Your task to perform on an android device: Clear all items from cart on target.com. Search for lg ultragear on target.com, select the first entry, and add it to the cart. Image 0: 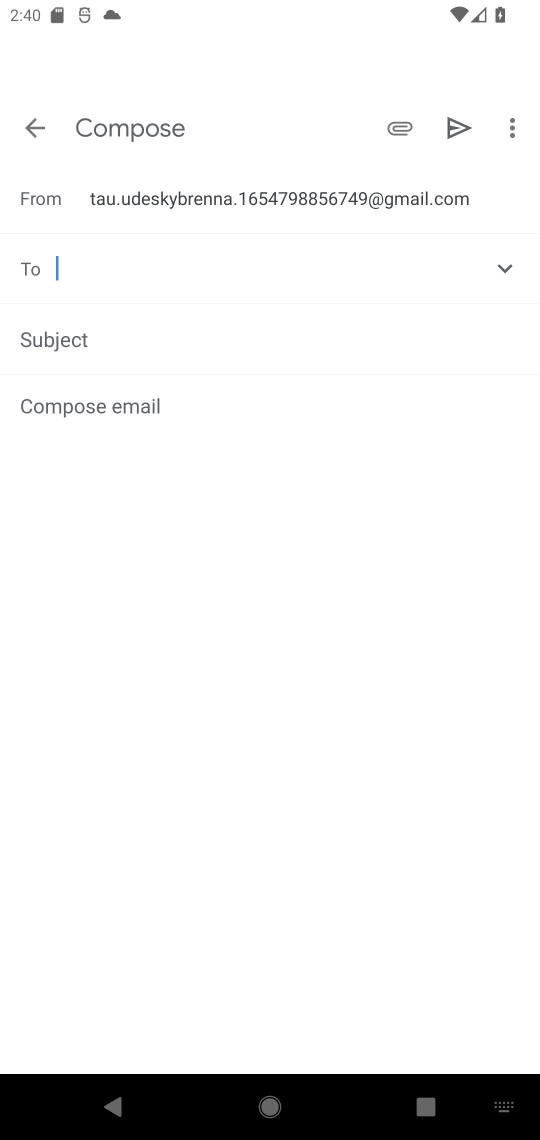
Step 0: press home button
Your task to perform on an android device: Clear all items from cart on target.com. Search for lg ultragear on target.com, select the first entry, and add it to the cart. Image 1: 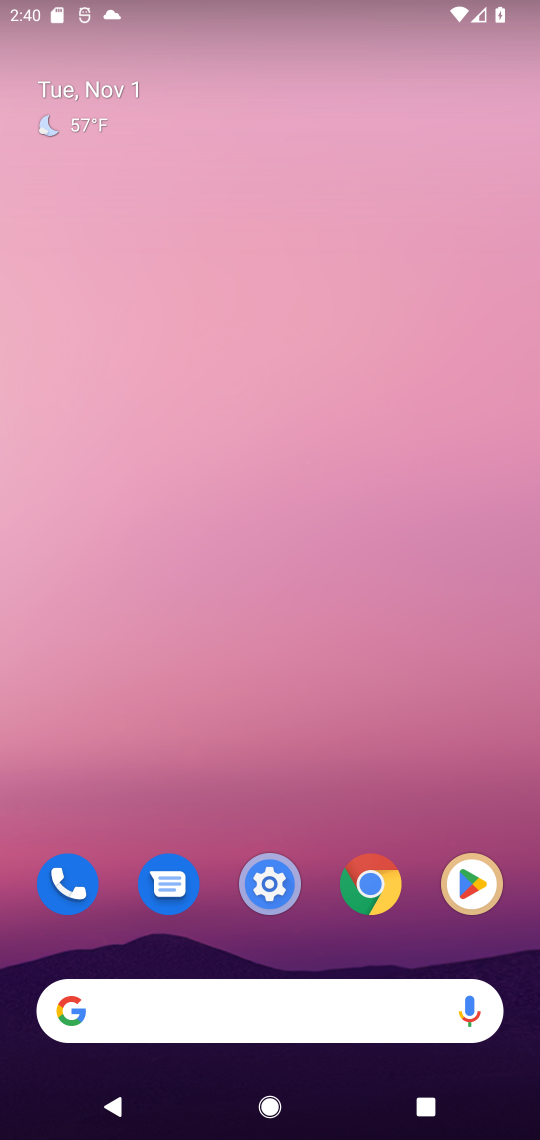
Step 1: click (101, 1018)
Your task to perform on an android device: Clear all items from cart on target.com. Search for lg ultragear on target.com, select the first entry, and add it to the cart. Image 2: 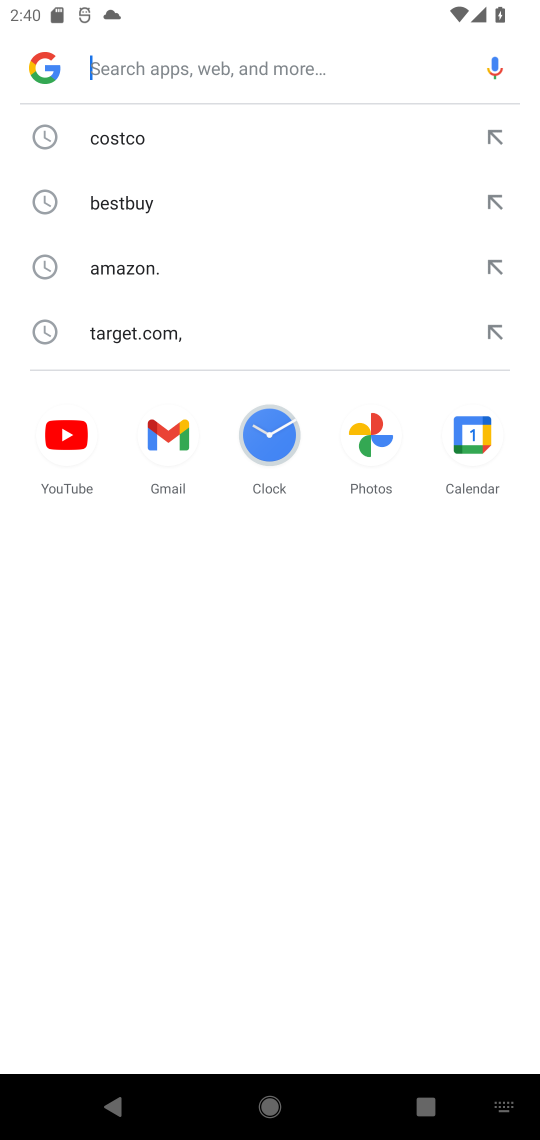
Step 2: type "target.com"
Your task to perform on an android device: Clear all items from cart on target.com. Search for lg ultragear on target.com, select the first entry, and add it to the cart. Image 3: 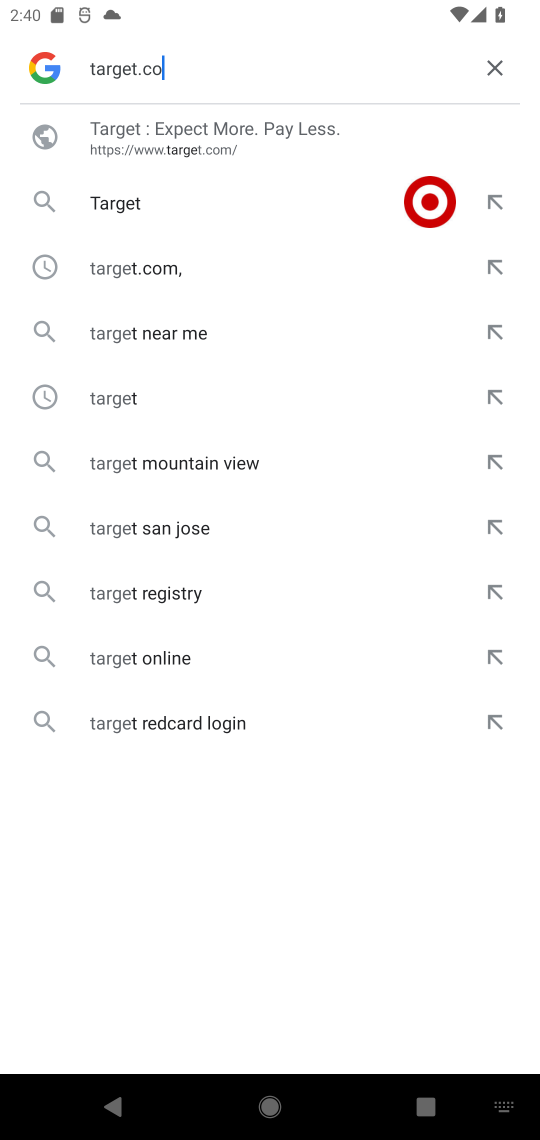
Step 3: press enter
Your task to perform on an android device: Clear all items from cart on target.com. Search for lg ultragear on target.com, select the first entry, and add it to the cart. Image 4: 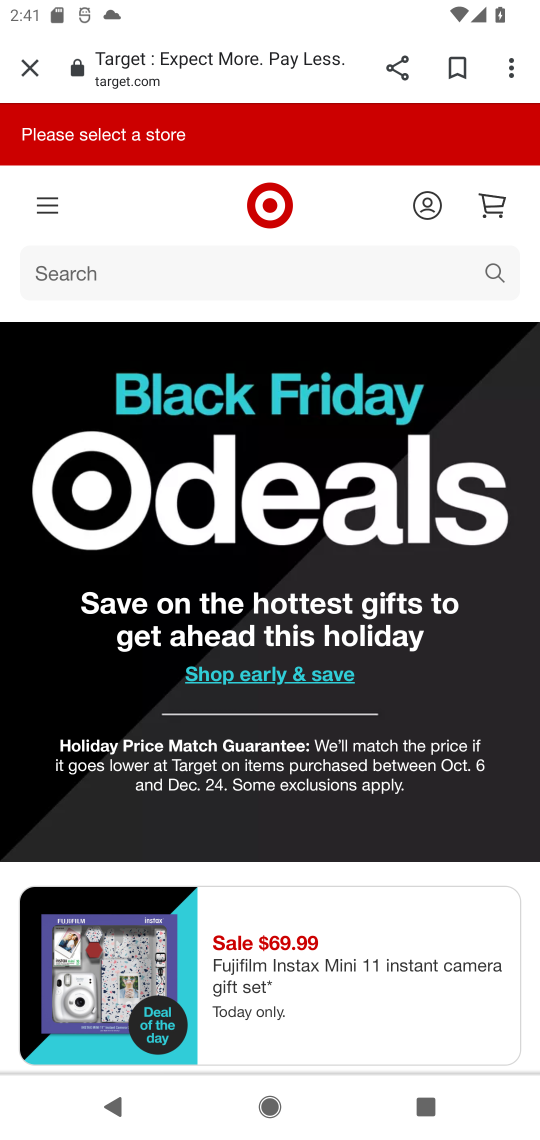
Step 4: click (488, 198)
Your task to perform on an android device: Clear all items from cart on target.com. Search for lg ultragear on target.com, select the first entry, and add it to the cart. Image 5: 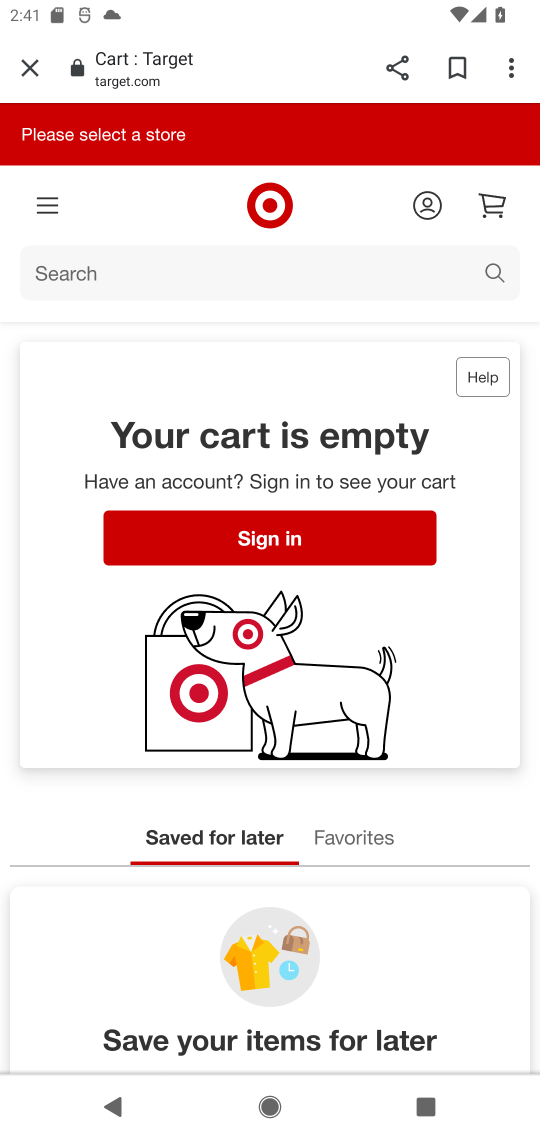
Step 5: click (83, 271)
Your task to perform on an android device: Clear all items from cart on target.com. Search for lg ultragear on target.com, select the first entry, and add it to the cart. Image 6: 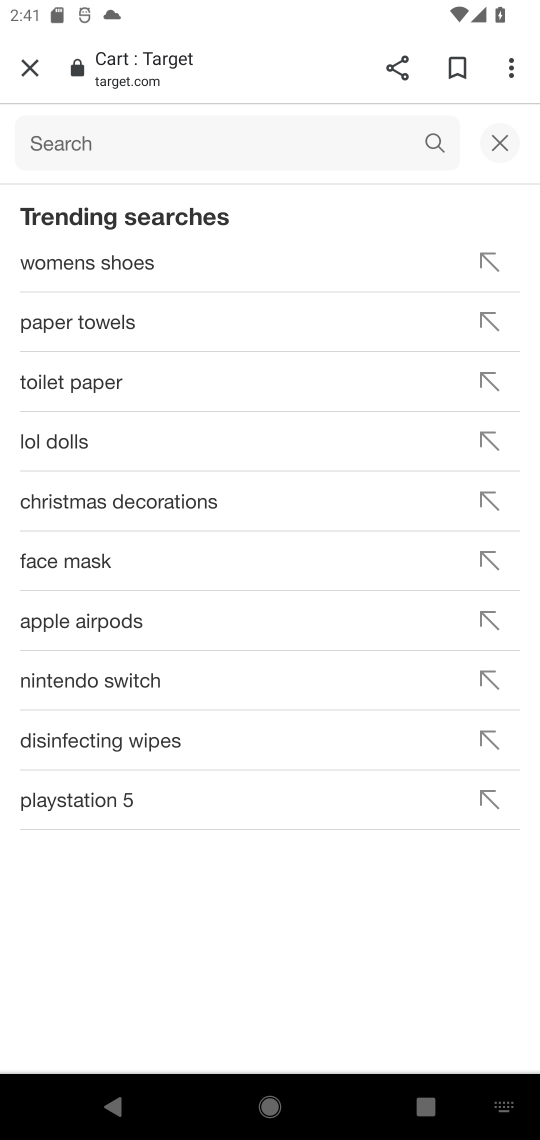
Step 6: type "lg ultragear"
Your task to perform on an android device: Clear all items from cart on target.com. Search for lg ultragear on target.com, select the first entry, and add it to the cart. Image 7: 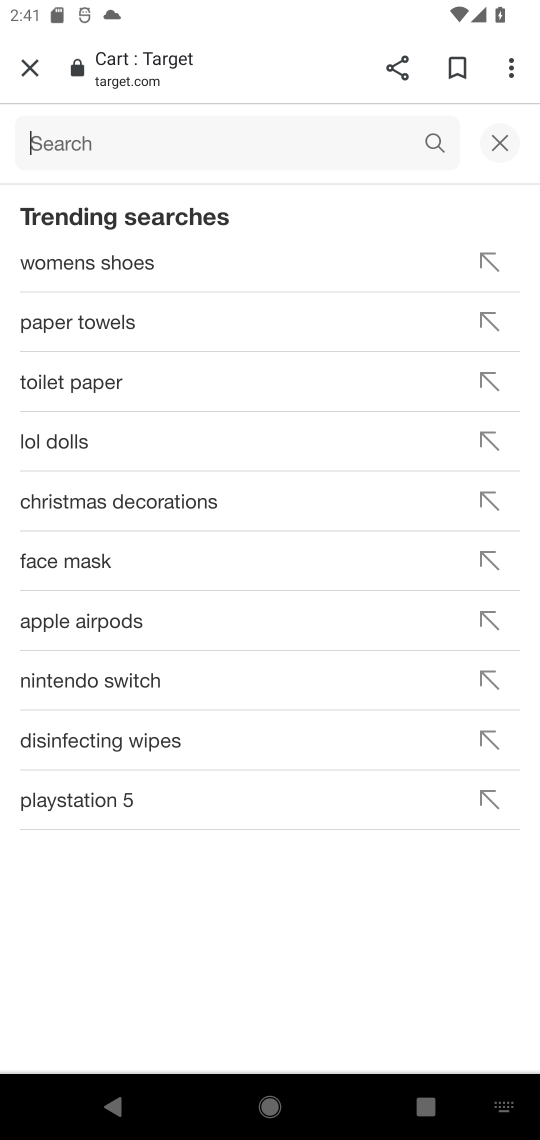
Step 7: press enter
Your task to perform on an android device: Clear all items from cart on target.com. Search for lg ultragear on target.com, select the first entry, and add it to the cart. Image 8: 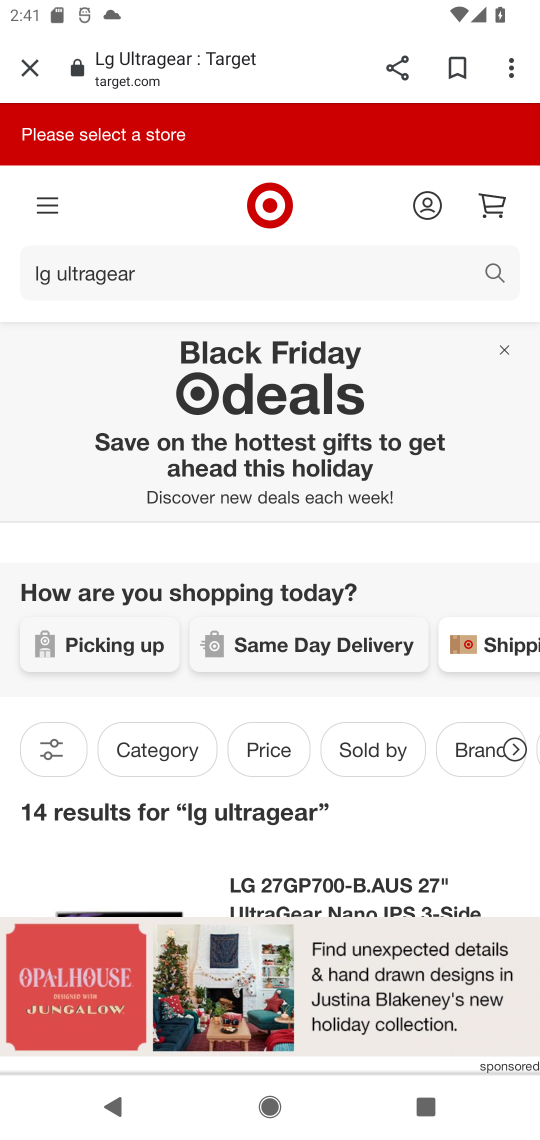
Step 8: drag from (354, 872) to (348, 495)
Your task to perform on an android device: Clear all items from cart on target.com. Search for lg ultragear on target.com, select the first entry, and add it to the cart. Image 9: 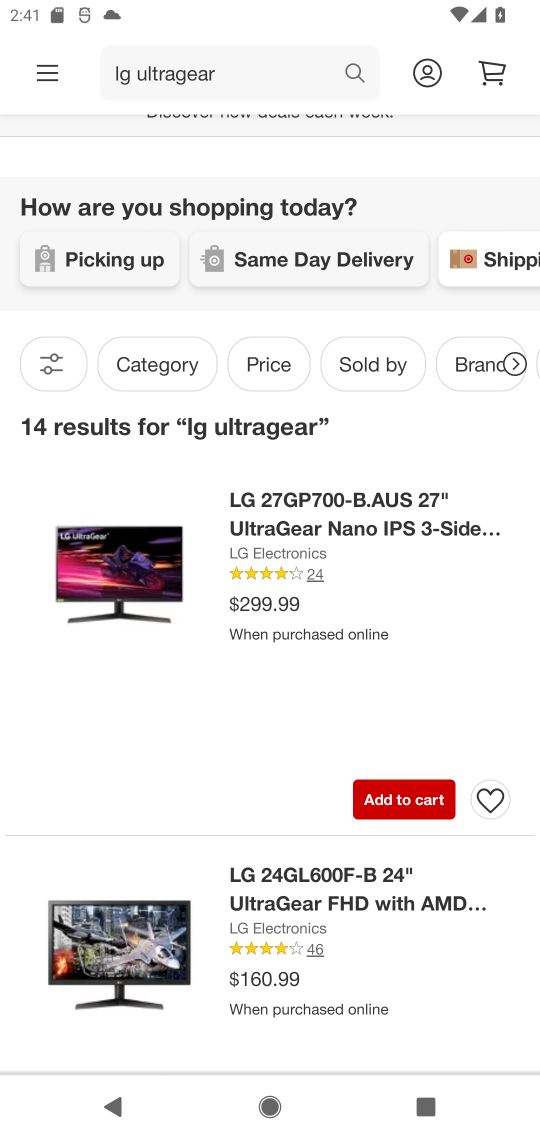
Step 9: click (408, 792)
Your task to perform on an android device: Clear all items from cart on target.com. Search for lg ultragear on target.com, select the first entry, and add it to the cart. Image 10: 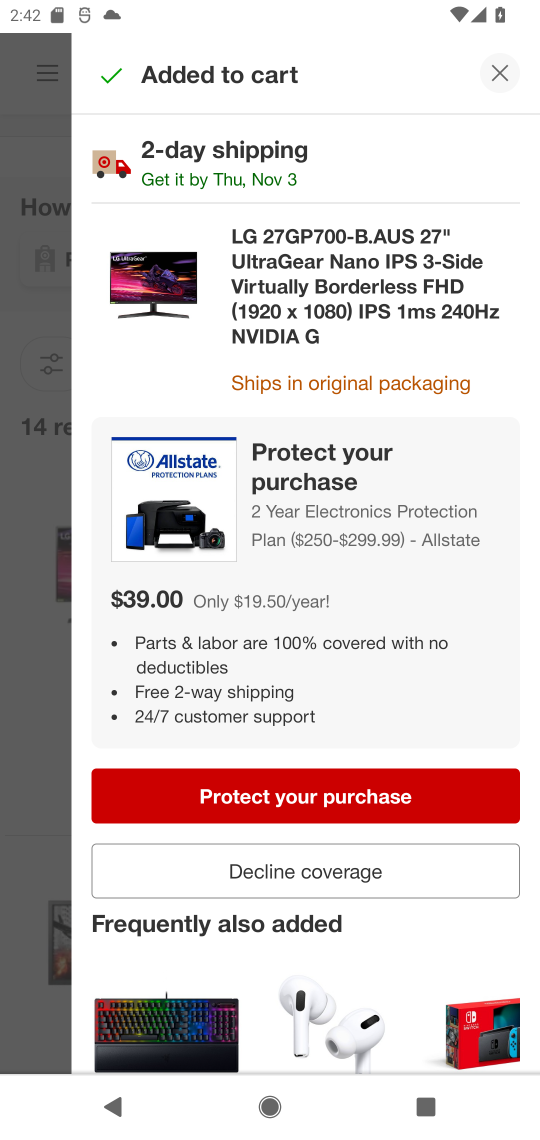
Step 10: task complete